Your task to perform on an android device: Go to accessibility settings Image 0: 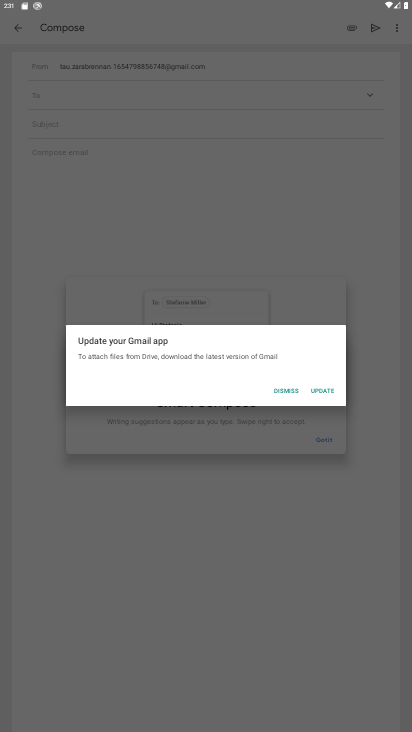
Step 0: press home button
Your task to perform on an android device: Go to accessibility settings Image 1: 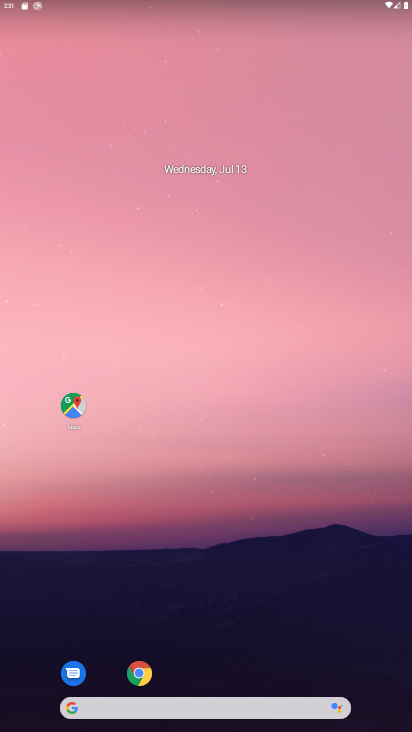
Step 1: drag from (206, 672) to (278, 253)
Your task to perform on an android device: Go to accessibility settings Image 2: 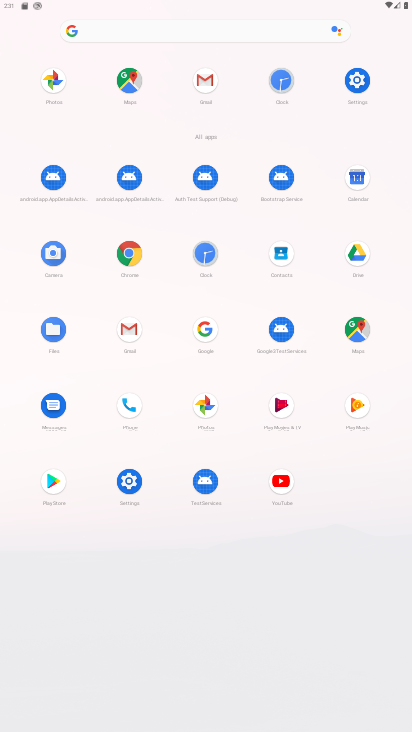
Step 2: click (130, 480)
Your task to perform on an android device: Go to accessibility settings Image 3: 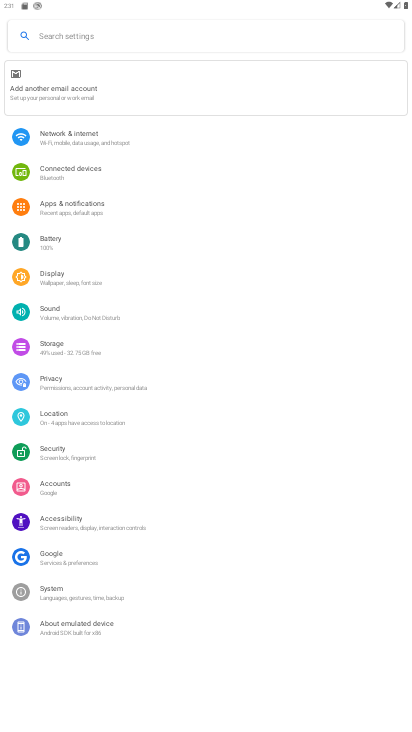
Step 3: click (71, 529)
Your task to perform on an android device: Go to accessibility settings Image 4: 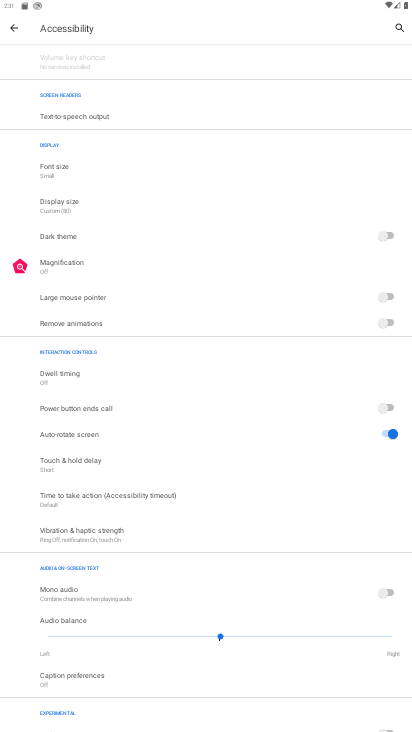
Step 4: task complete